Your task to perform on an android device: find which apps use the phone's location Image 0: 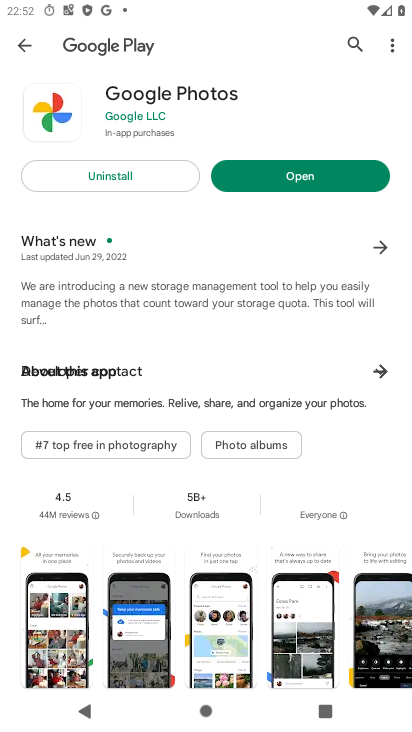
Step 0: press home button
Your task to perform on an android device: find which apps use the phone's location Image 1: 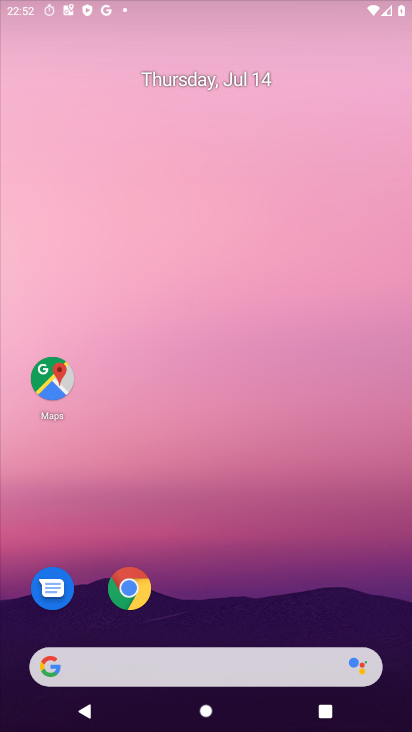
Step 1: drag from (199, 594) to (240, 119)
Your task to perform on an android device: find which apps use the phone's location Image 2: 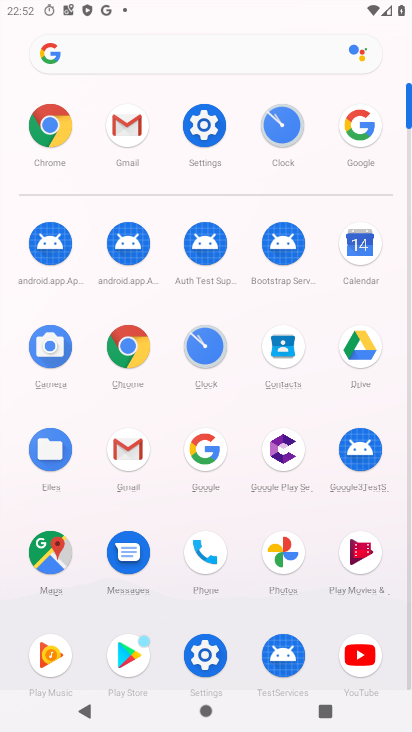
Step 2: click (205, 119)
Your task to perform on an android device: find which apps use the phone's location Image 3: 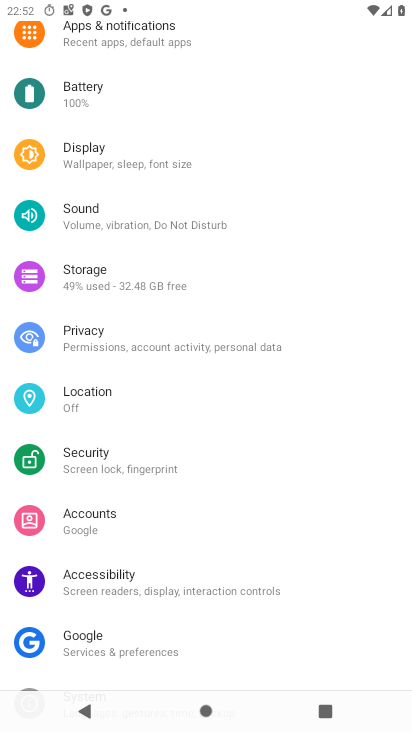
Step 3: click (145, 407)
Your task to perform on an android device: find which apps use the phone's location Image 4: 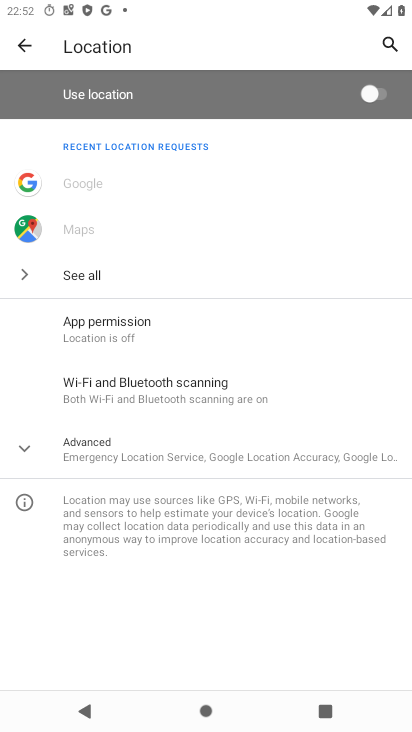
Step 4: click (149, 331)
Your task to perform on an android device: find which apps use the phone's location Image 5: 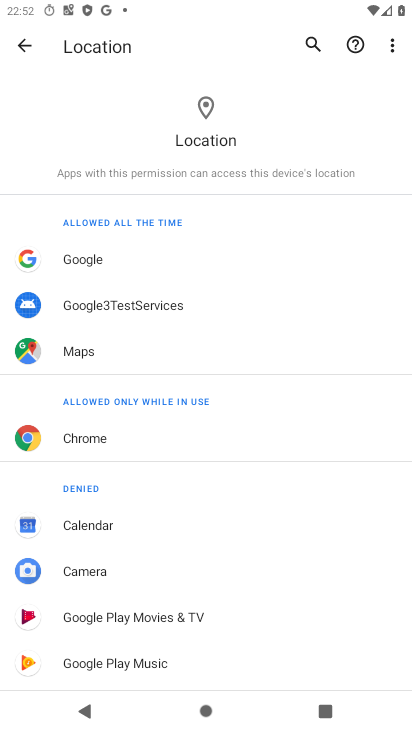
Step 5: task complete